Your task to perform on an android device: change text size in settings app Image 0: 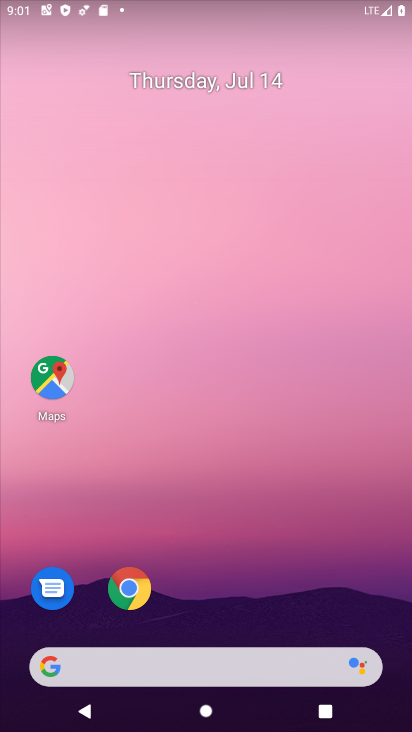
Step 0: drag from (373, 624) to (259, 68)
Your task to perform on an android device: change text size in settings app Image 1: 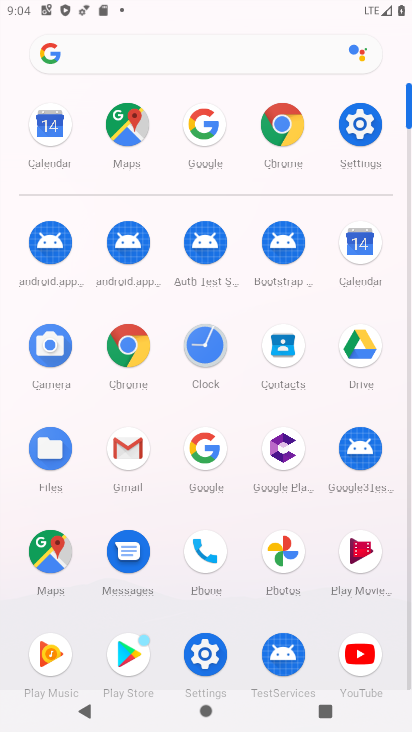
Step 1: click (200, 666)
Your task to perform on an android device: change text size in settings app Image 2: 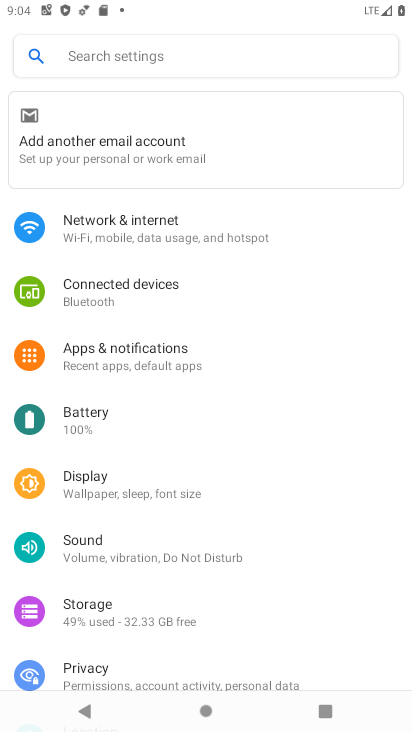
Step 2: click (114, 484)
Your task to perform on an android device: change text size in settings app Image 3: 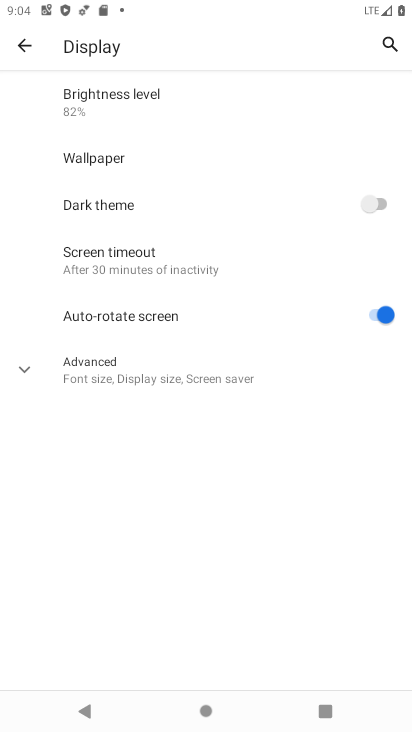
Step 3: click (72, 378)
Your task to perform on an android device: change text size in settings app Image 4: 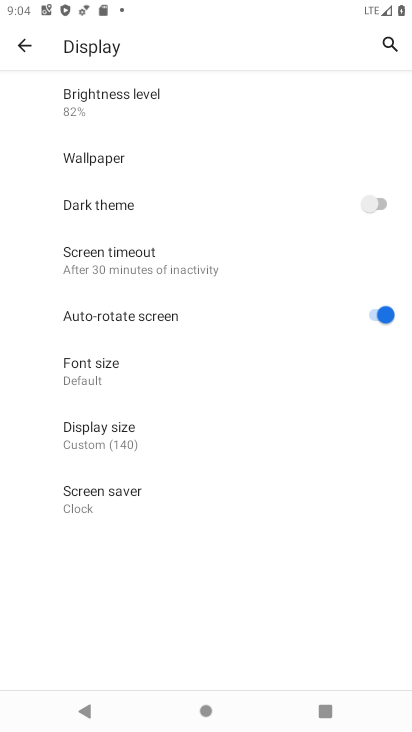
Step 4: click (113, 394)
Your task to perform on an android device: change text size in settings app Image 5: 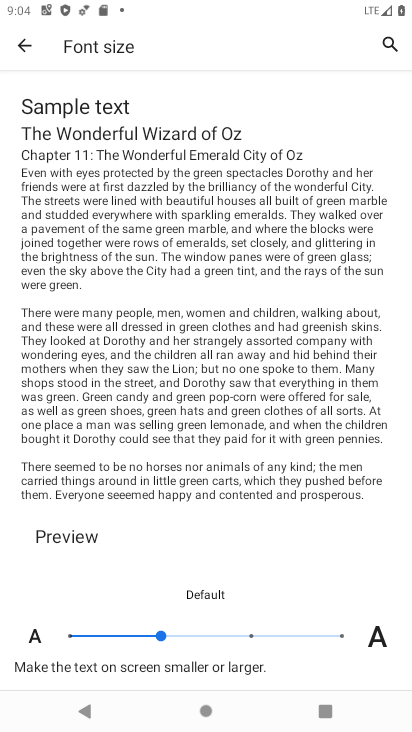
Step 5: click (340, 633)
Your task to perform on an android device: change text size in settings app Image 6: 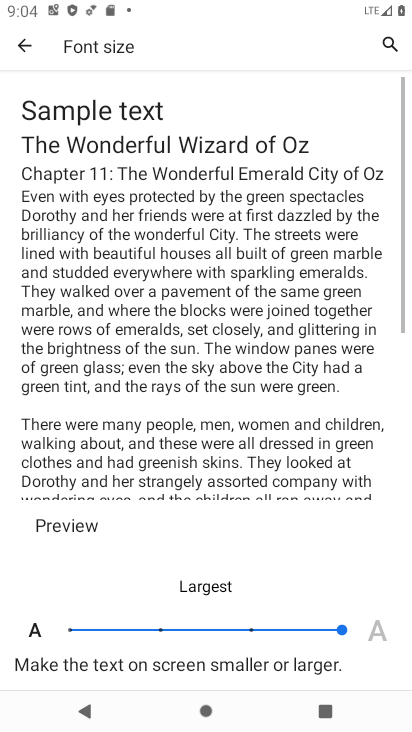
Step 6: task complete